Your task to perform on an android device: Open internet settings Image 0: 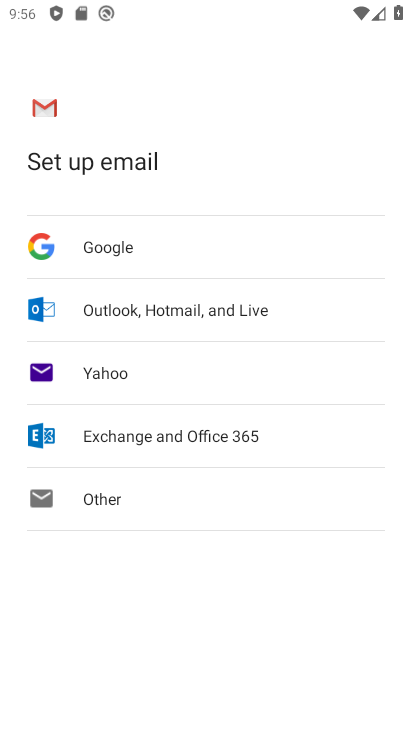
Step 0: press home button
Your task to perform on an android device: Open internet settings Image 1: 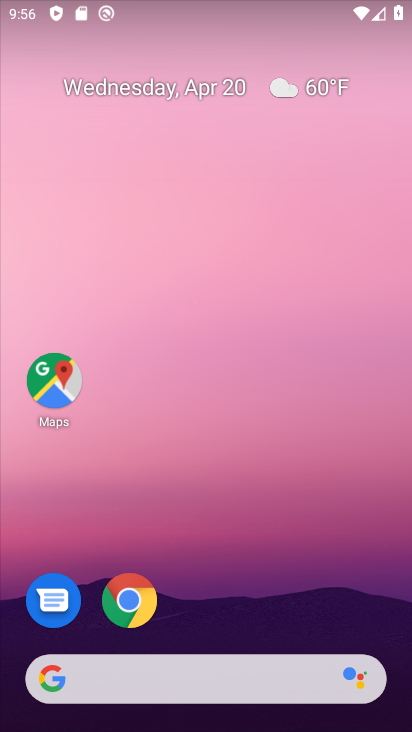
Step 1: drag from (258, 578) to (282, 48)
Your task to perform on an android device: Open internet settings Image 2: 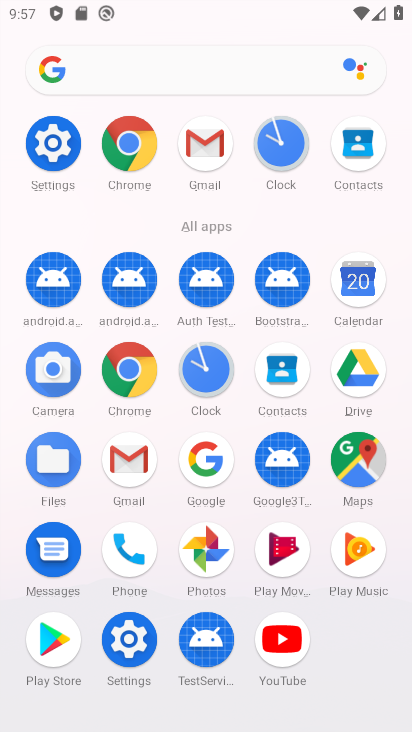
Step 2: click (57, 141)
Your task to perform on an android device: Open internet settings Image 3: 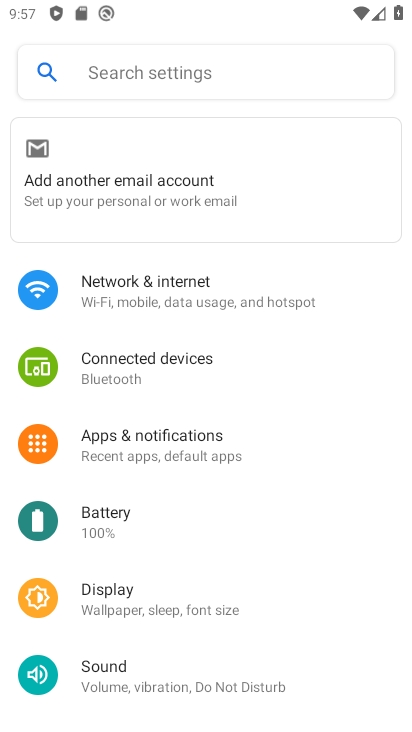
Step 3: click (128, 286)
Your task to perform on an android device: Open internet settings Image 4: 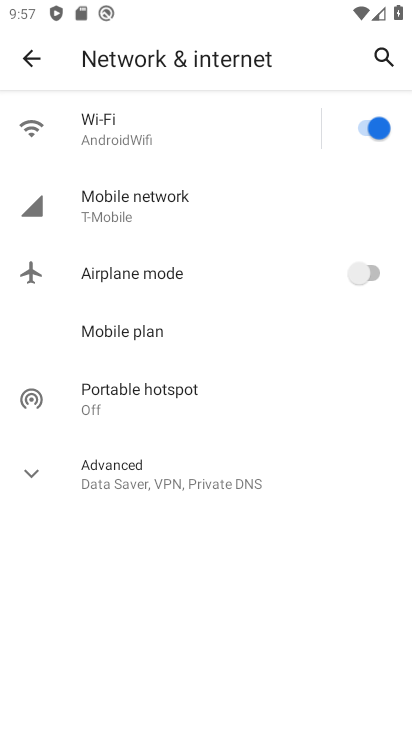
Step 4: click (129, 197)
Your task to perform on an android device: Open internet settings Image 5: 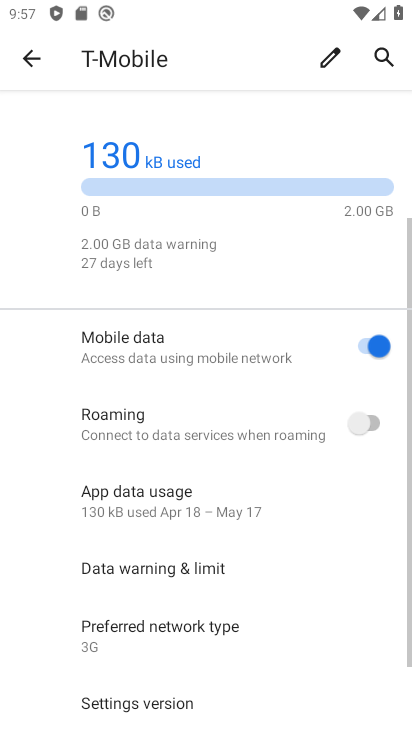
Step 5: task complete